Your task to perform on an android device: Go to sound settings Image 0: 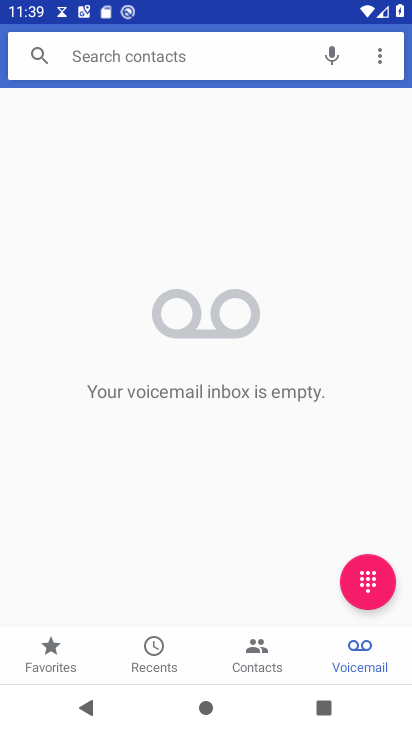
Step 0: drag from (289, 564) to (294, 93)
Your task to perform on an android device: Go to sound settings Image 1: 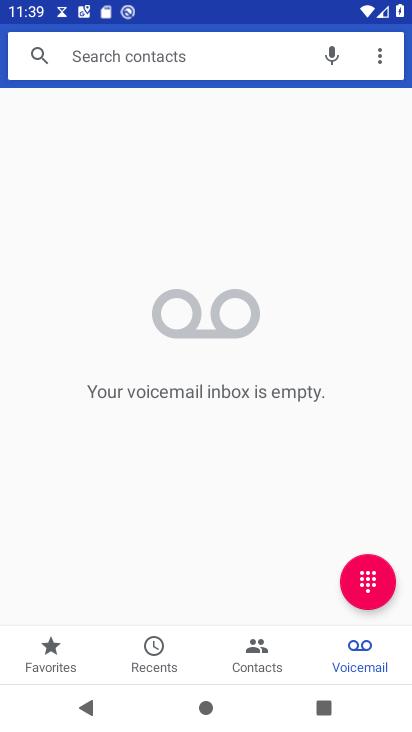
Step 1: press home button
Your task to perform on an android device: Go to sound settings Image 2: 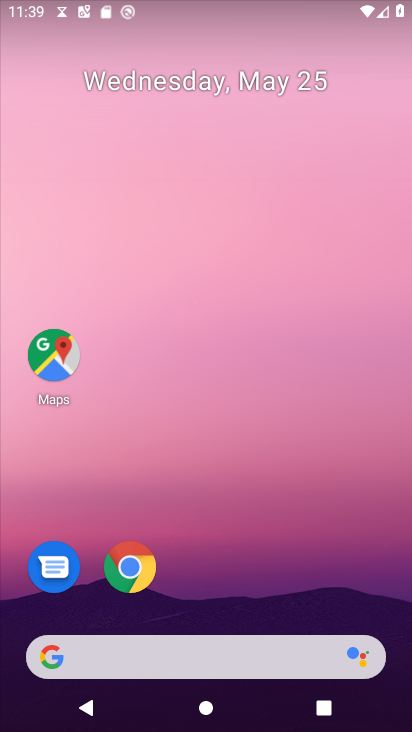
Step 2: drag from (204, 594) to (199, 5)
Your task to perform on an android device: Go to sound settings Image 3: 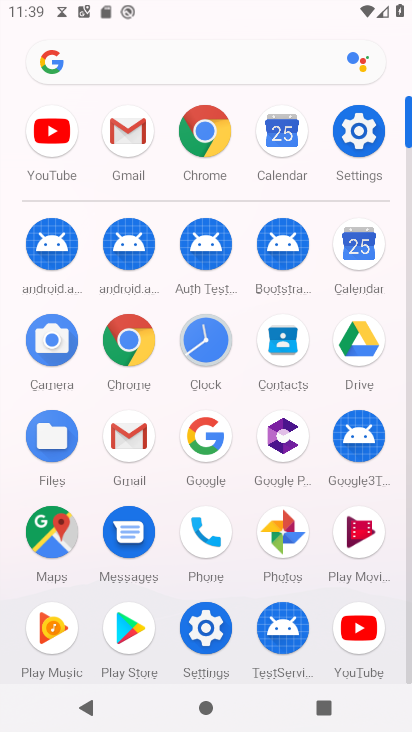
Step 3: click (352, 134)
Your task to perform on an android device: Go to sound settings Image 4: 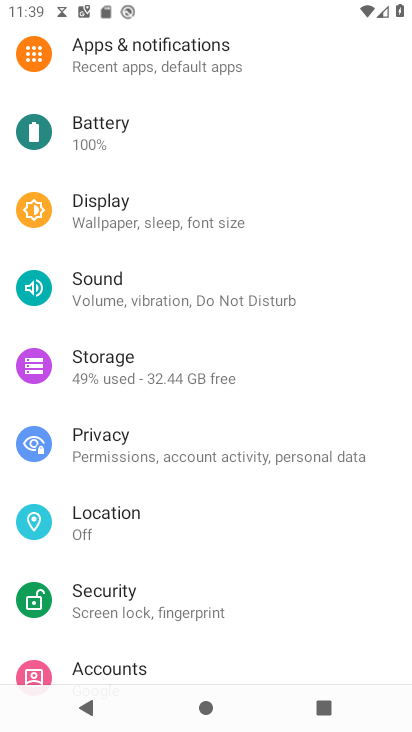
Step 4: click (211, 290)
Your task to perform on an android device: Go to sound settings Image 5: 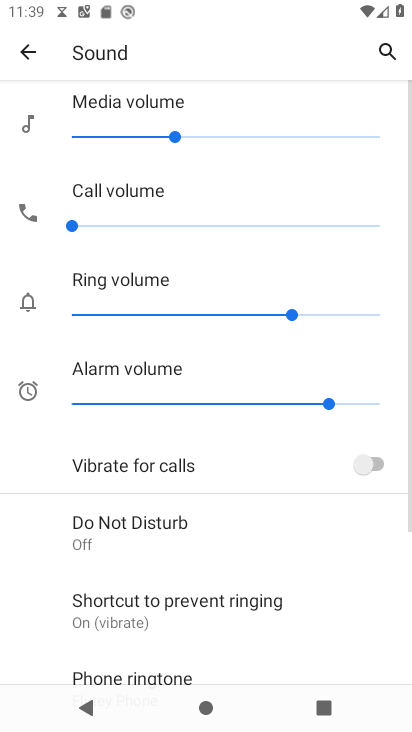
Step 5: task complete